Your task to perform on an android device: What's the weather going to be tomorrow? Image 0: 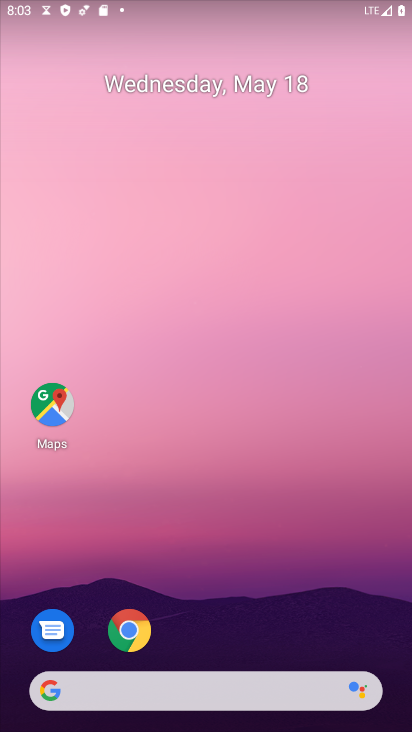
Step 0: drag from (322, 560) to (247, 17)
Your task to perform on an android device: What's the weather going to be tomorrow? Image 1: 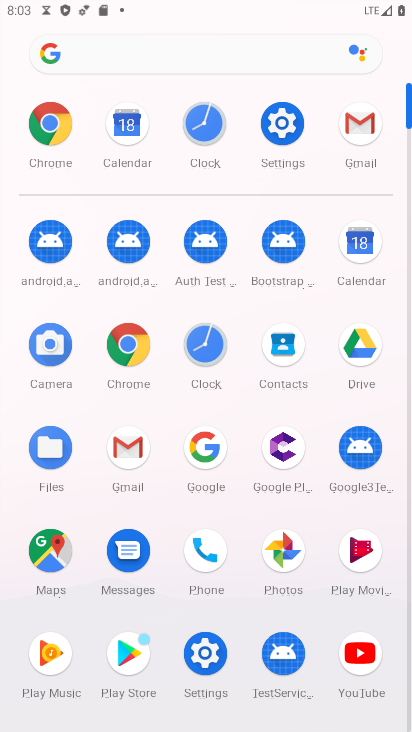
Step 1: click (58, 53)
Your task to perform on an android device: What's the weather going to be tomorrow? Image 2: 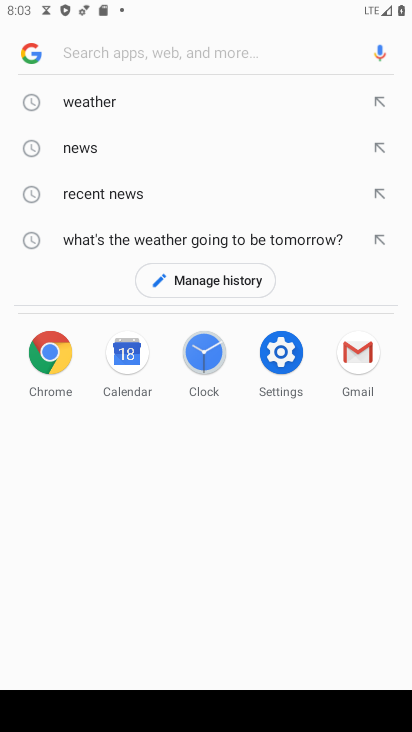
Step 2: click (27, 53)
Your task to perform on an android device: What's the weather going to be tomorrow? Image 3: 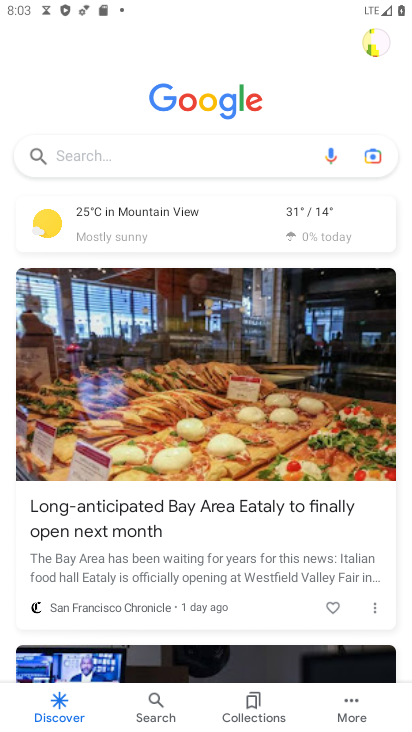
Step 3: click (107, 221)
Your task to perform on an android device: What's the weather going to be tomorrow? Image 4: 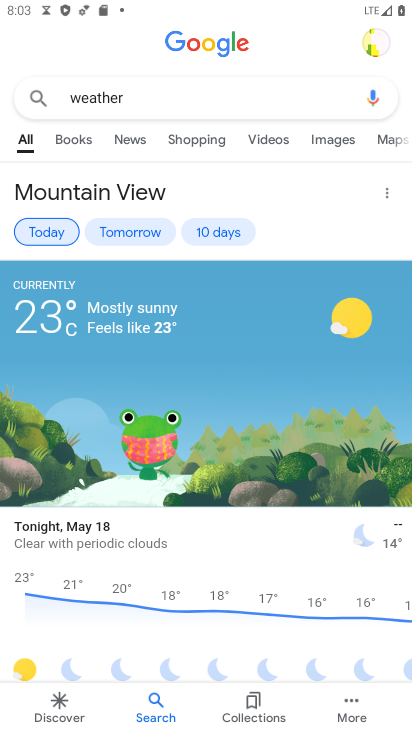
Step 4: click (140, 230)
Your task to perform on an android device: What's the weather going to be tomorrow? Image 5: 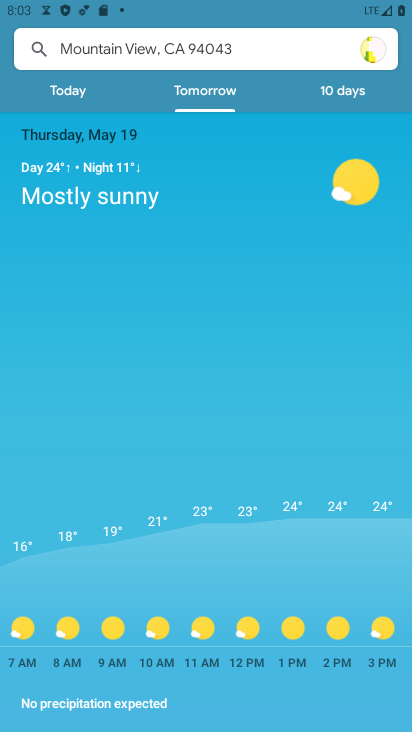
Step 5: task complete